Your task to perform on an android device: Check the news Image 0: 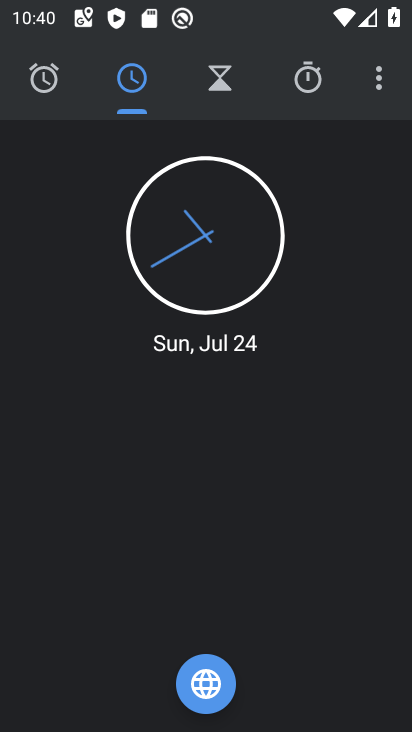
Step 0: press back button
Your task to perform on an android device: Check the news Image 1: 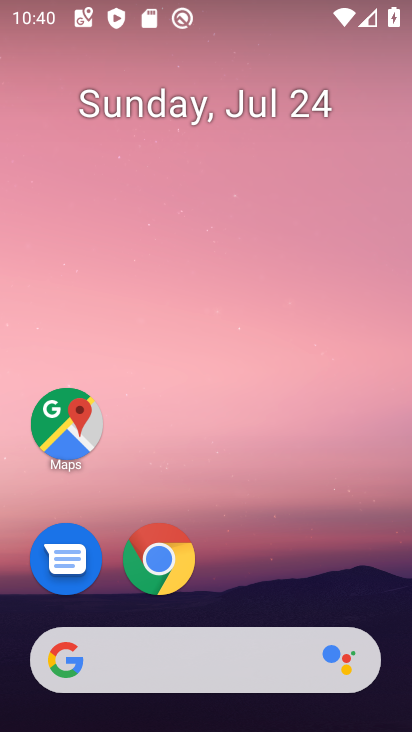
Step 1: click (216, 674)
Your task to perform on an android device: Check the news Image 2: 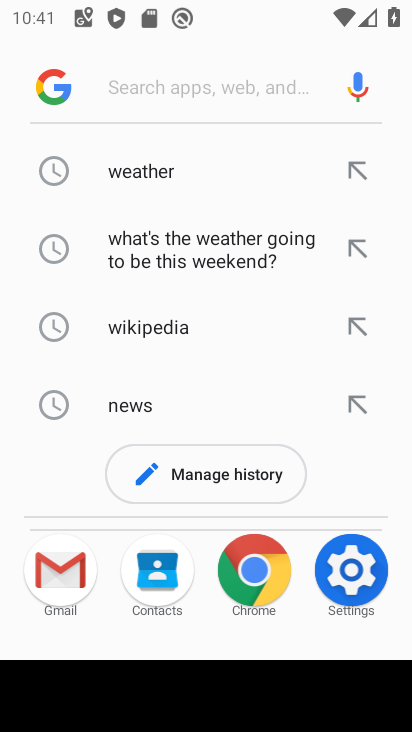
Step 2: click (162, 412)
Your task to perform on an android device: Check the news Image 3: 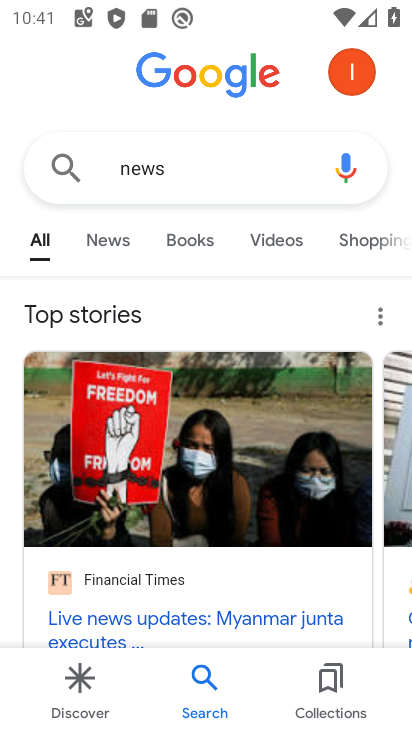
Step 3: task complete